Your task to perform on an android device: make emails show in primary in the gmail app Image 0: 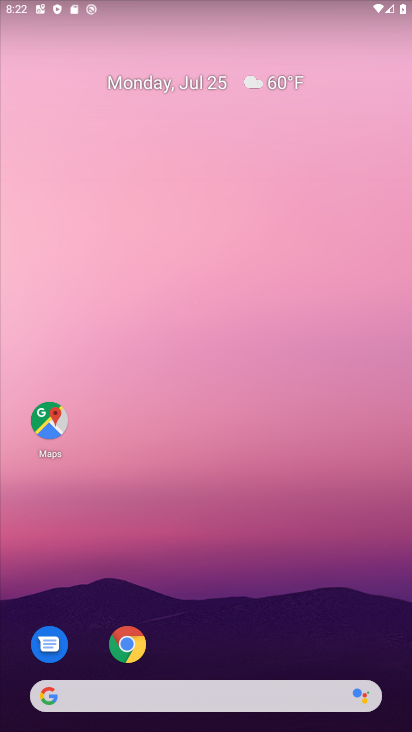
Step 0: drag from (278, 555) to (283, 220)
Your task to perform on an android device: make emails show in primary in the gmail app Image 1: 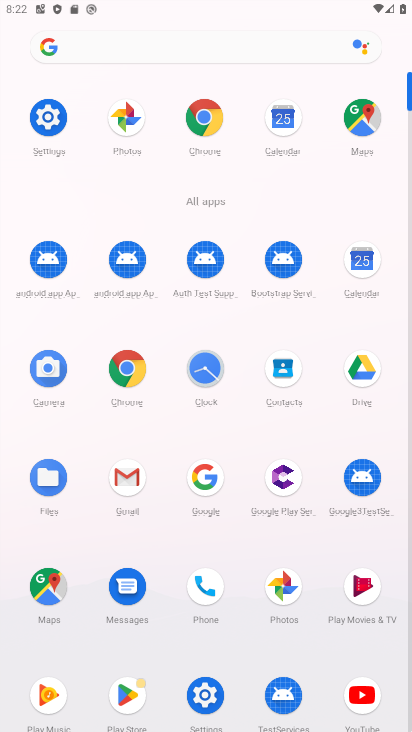
Step 1: click (125, 486)
Your task to perform on an android device: make emails show in primary in the gmail app Image 2: 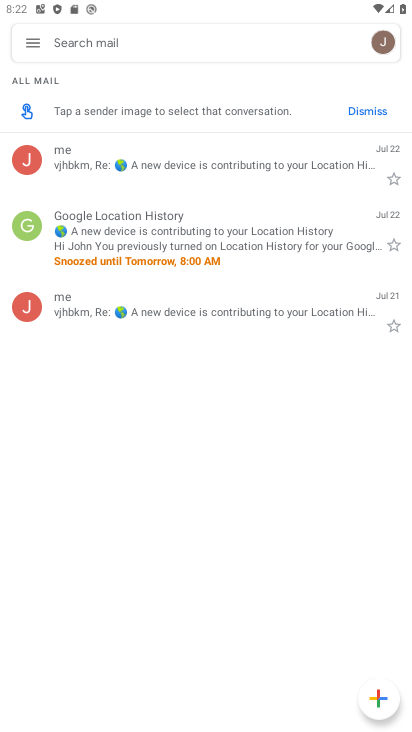
Step 2: task complete